Your task to perform on an android device: Turn off the flashlight Image 0: 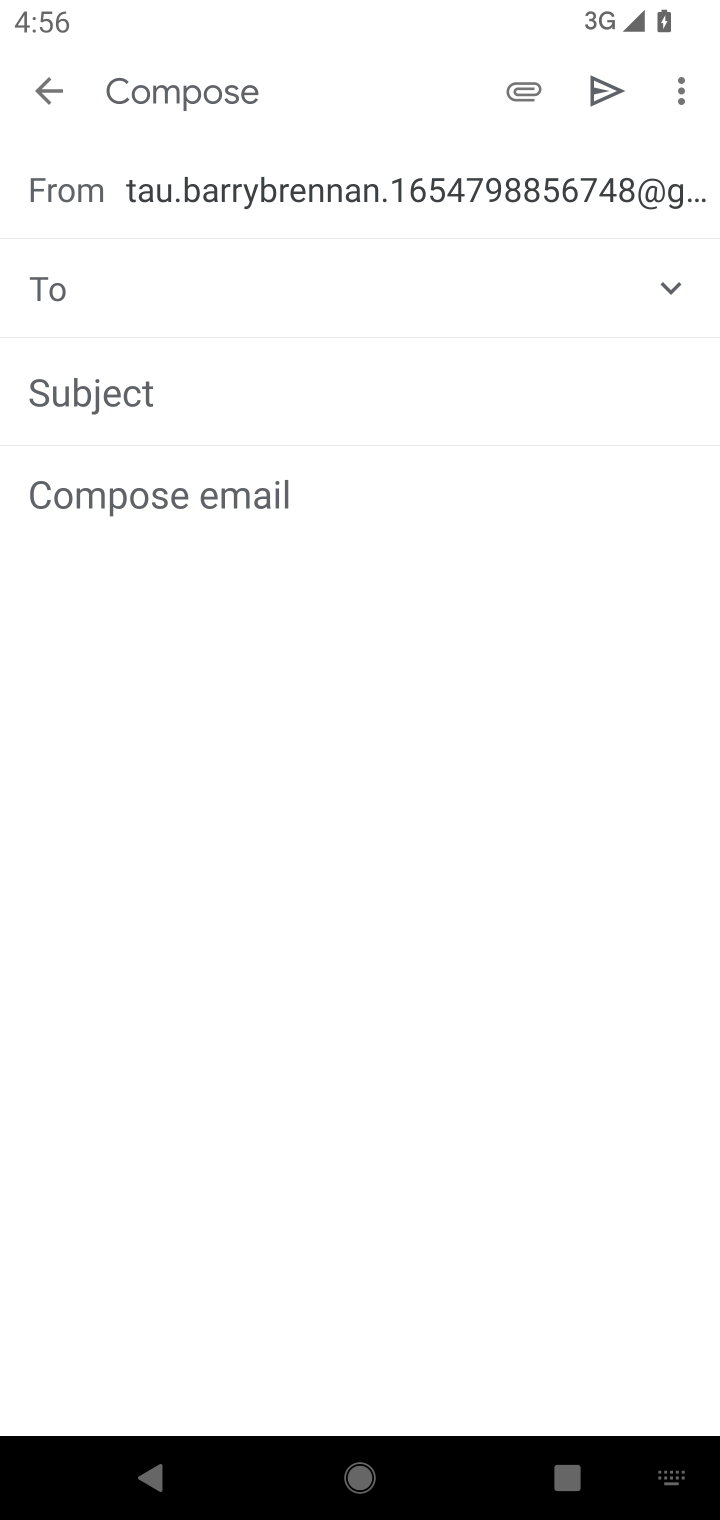
Step 0: press home button
Your task to perform on an android device: Turn off the flashlight Image 1: 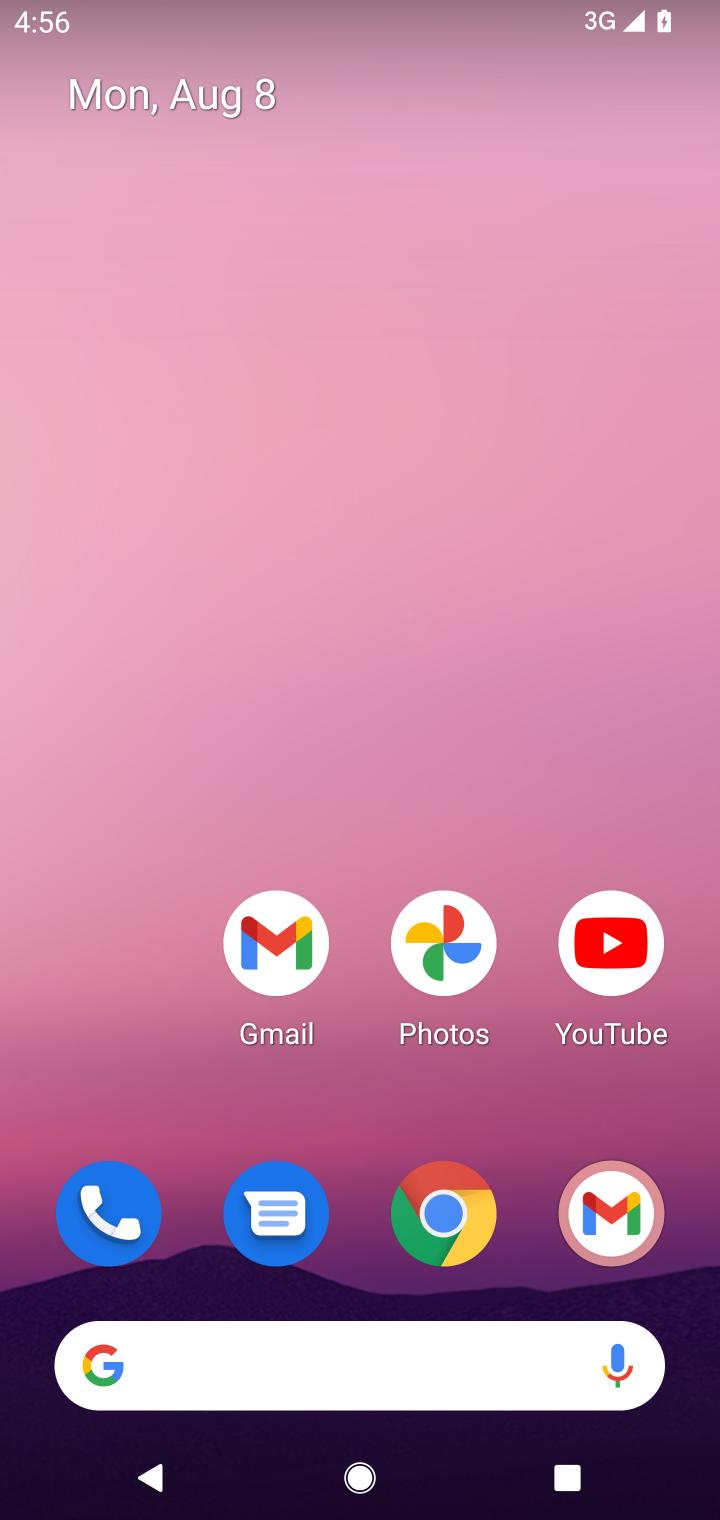
Step 1: drag from (353, 1093) to (353, 255)
Your task to perform on an android device: Turn off the flashlight Image 2: 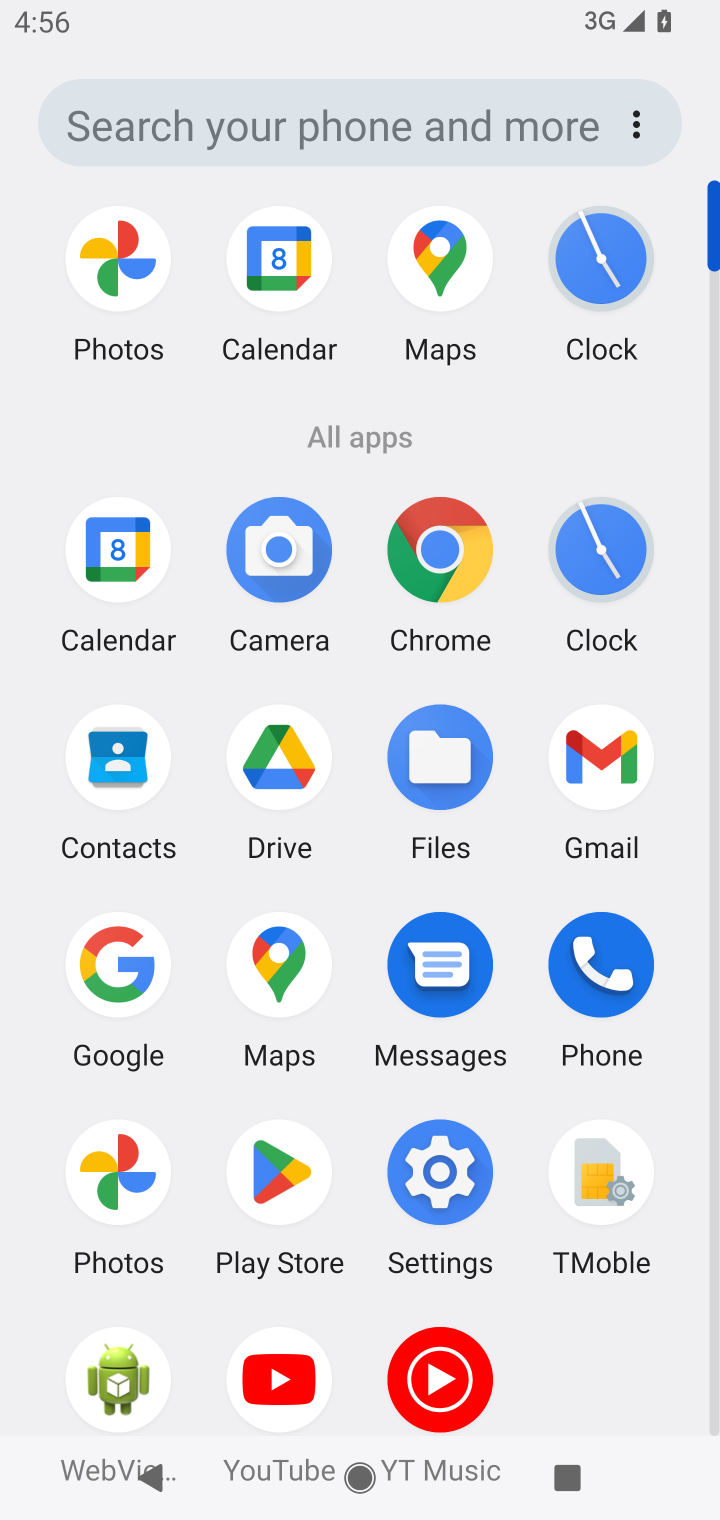
Step 2: click (445, 1186)
Your task to perform on an android device: Turn off the flashlight Image 3: 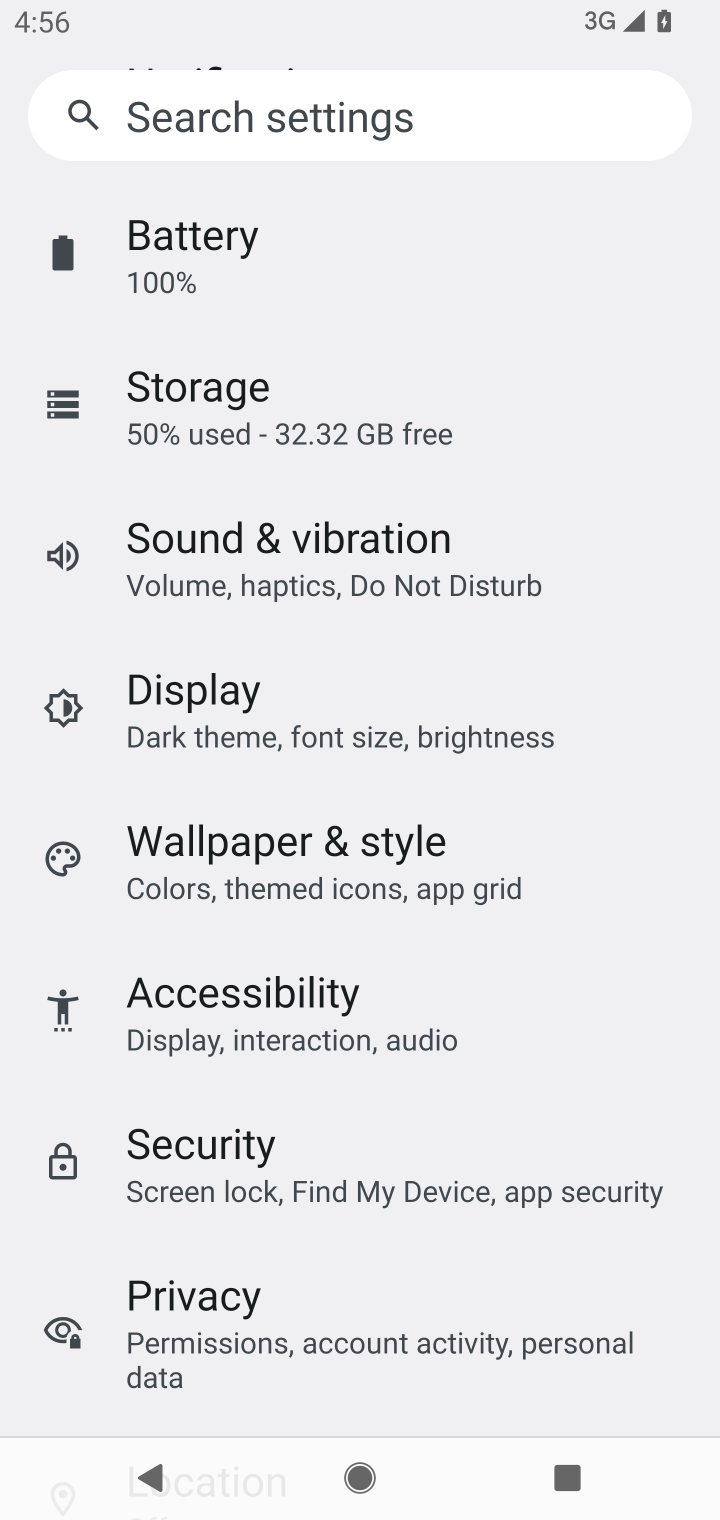
Step 3: task complete